Your task to perform on an android device: Clear all items from cart on walmart. Add bose quietcomfort 35 to the cart on walmart Image 0: 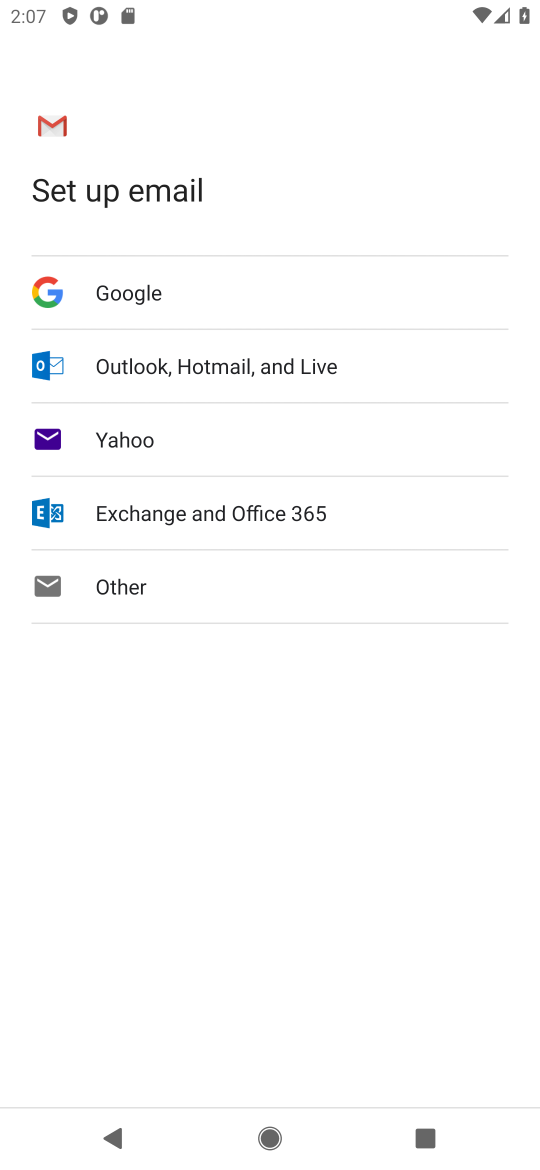
Step 0: press home button
Your task to perform on an android device: Clear all items from cart on walmart. Add bose quietcomfort 35 to the cart on walmart Image 1: 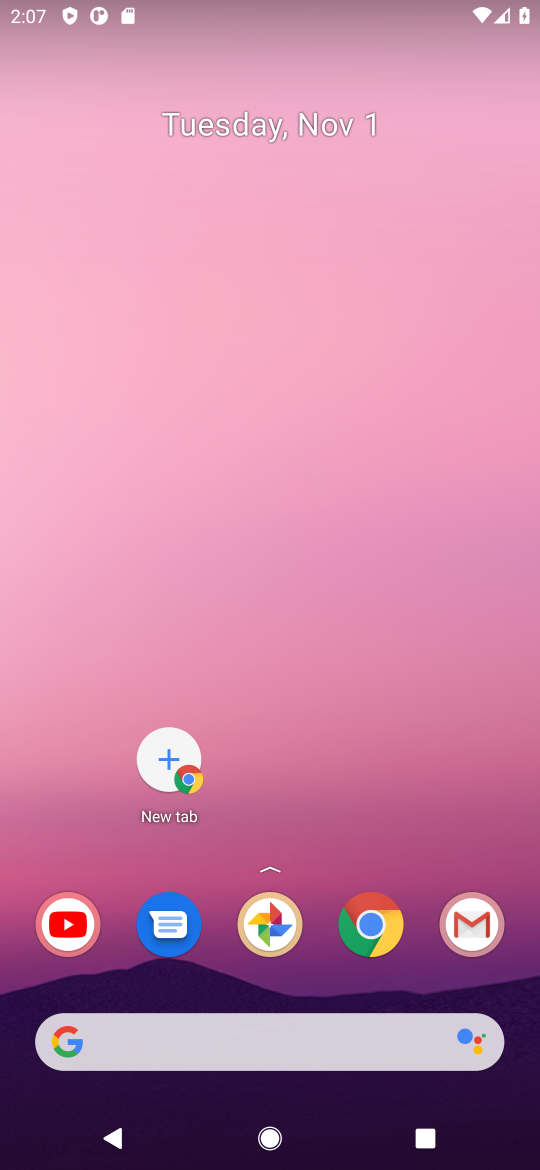
Step 1: click (380, 937)
Your task to perform on an android device: Clear all items from cart on walmart. Add bose quietcomfort 35 to the cart on walmart Image 2: 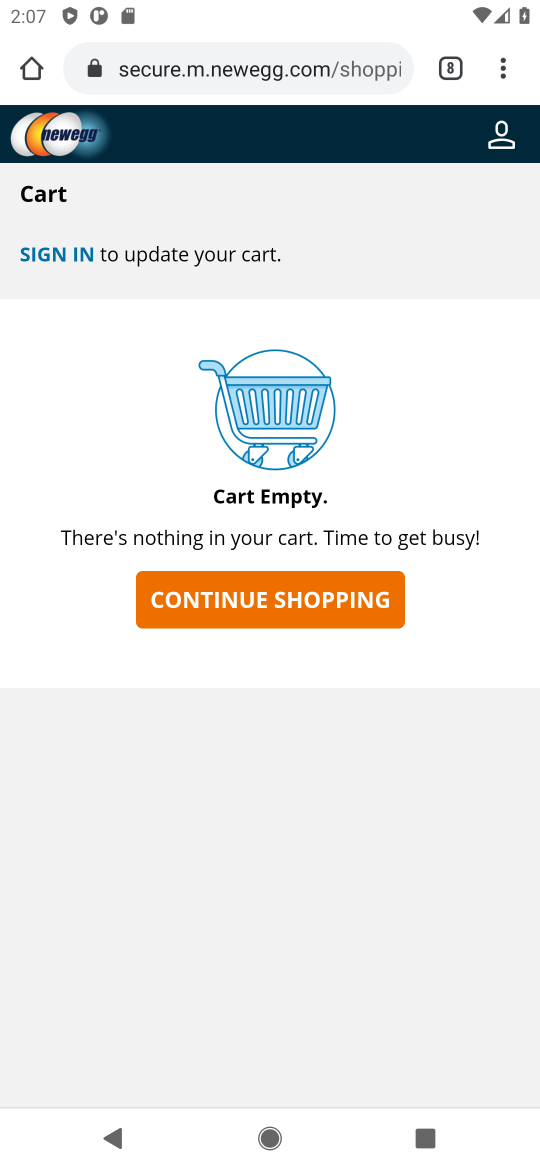
Step 2: click (178, 68)
Your task to perform on an android device: Clear all items from cart on walmart. Add bose quietcomfort 35 to the cart on walmart Image 3: 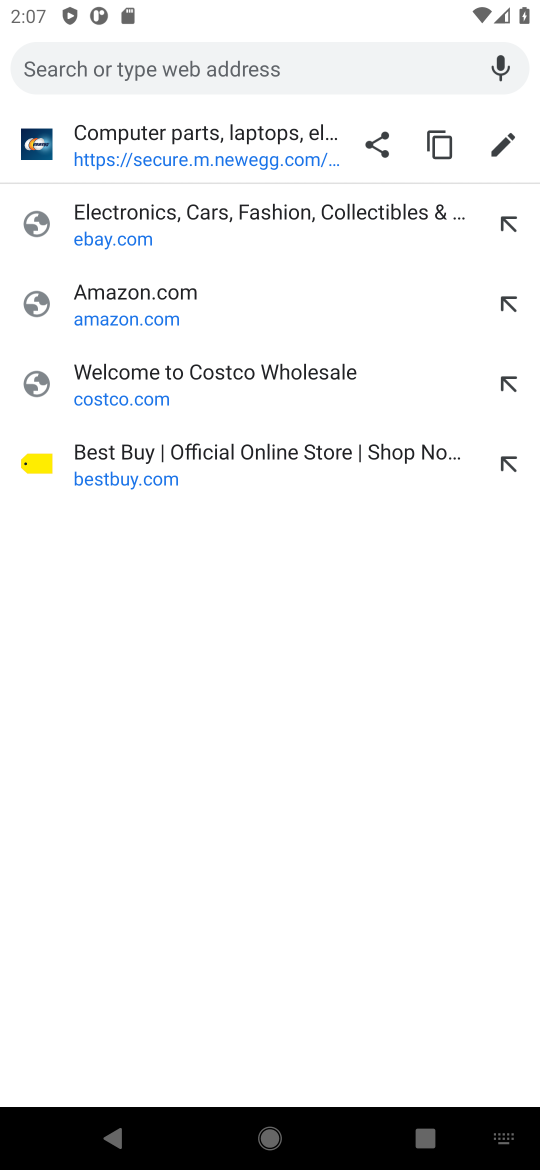
Step 3: type "walmart"
Your task to perform on an android device: Clear all items from cart on walmart. Add bose quietcomfort 35 to the cart on walmart Image 4: 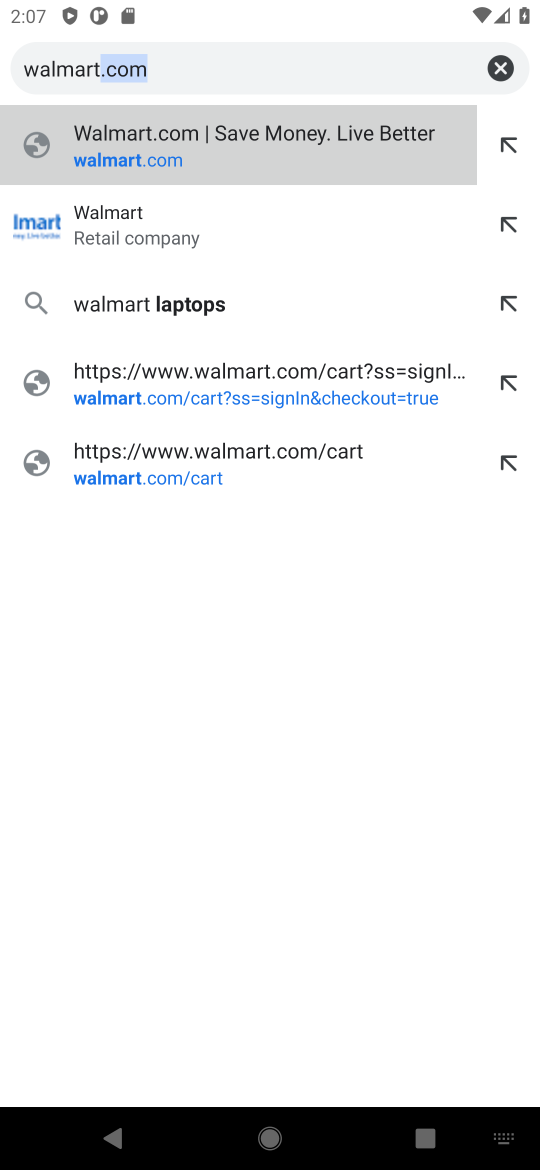
Step 4: type ""
Your task to perform on an android device: Clear all items from cart on walmart. Add bose quietcomfort 35 to the cart on walmart Image 5: 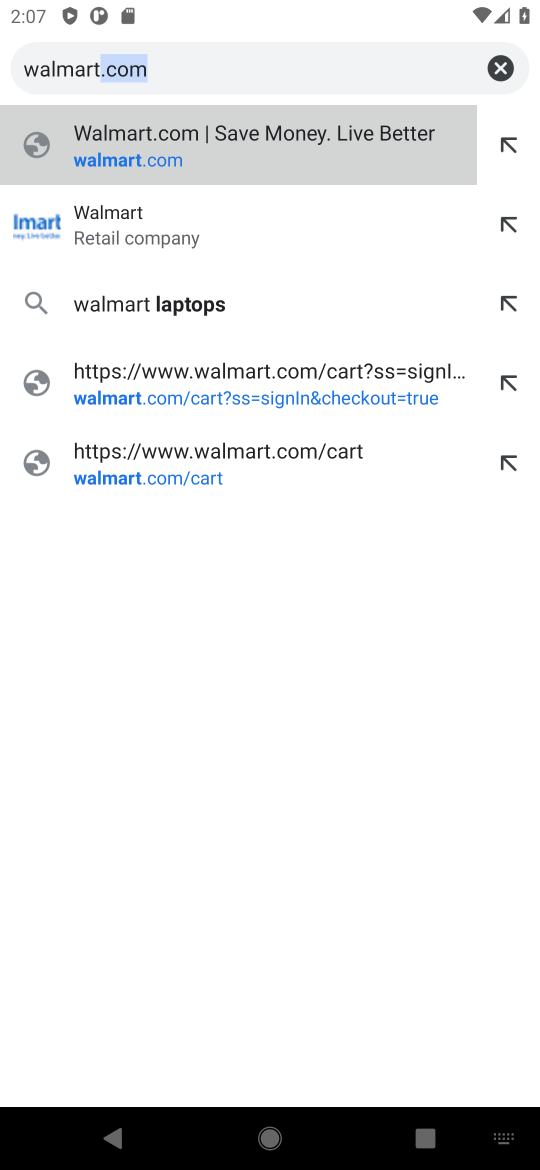
Step 5: click (107, 220)
Your task to perform on an android device: Clear all items from cart on walmart. Add bose quietcomfort 35 to the cart on walmart Image 6: 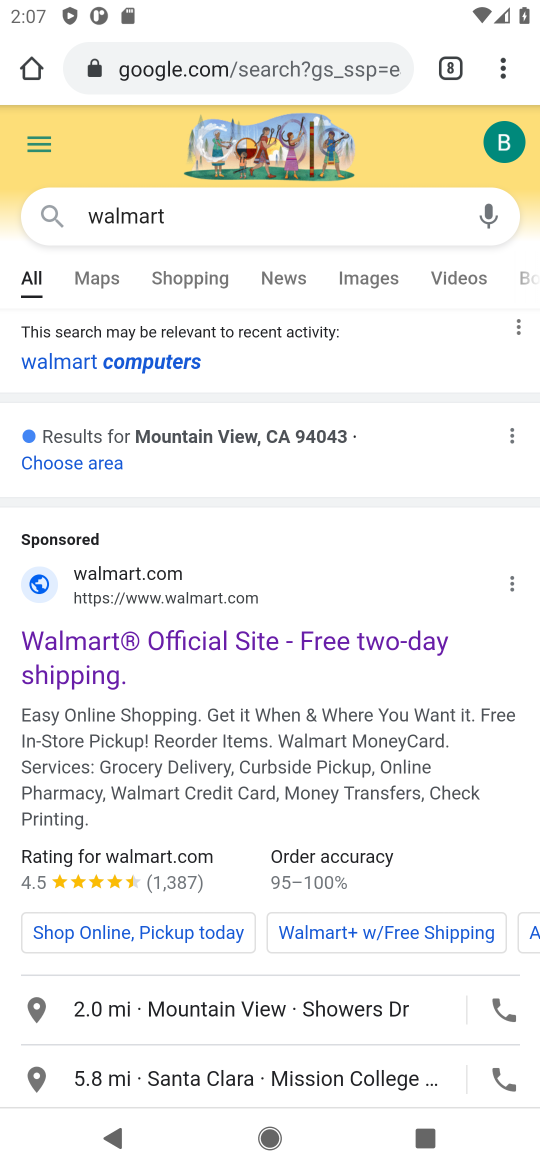
Step 6: click (187, 644)
Your task to perform on an android device: Clear all items from cart on walmart. Add bose quietcomfort 35 to the cart on walmart Image 7: 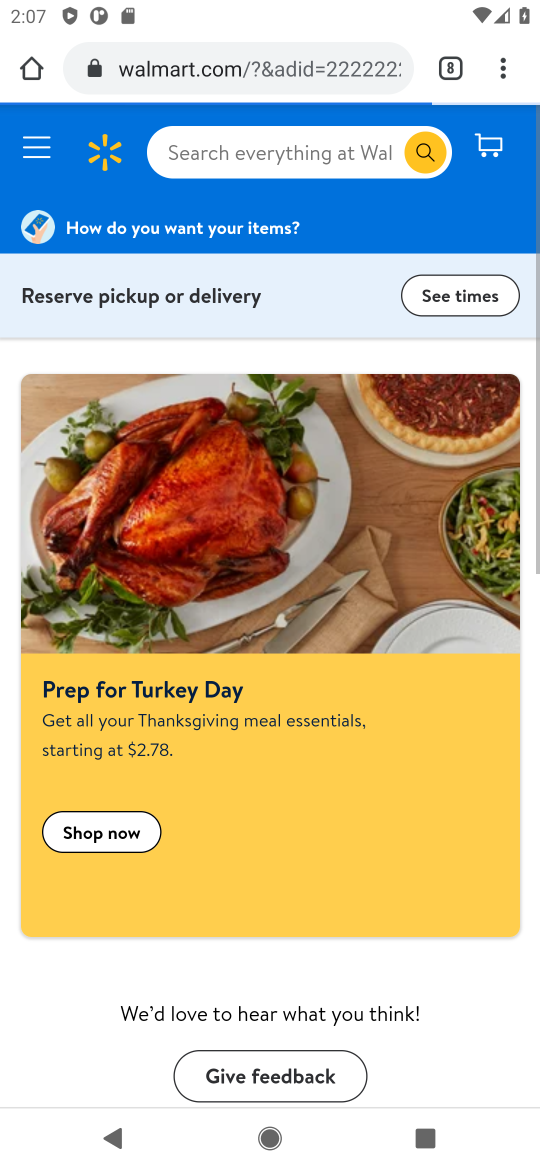
Step 7: click (215, 150)
Your task to perform on an android device: Clear all items from cart on walmart. Add bose quietcomfort 35 to the cart on walmart Image 8: 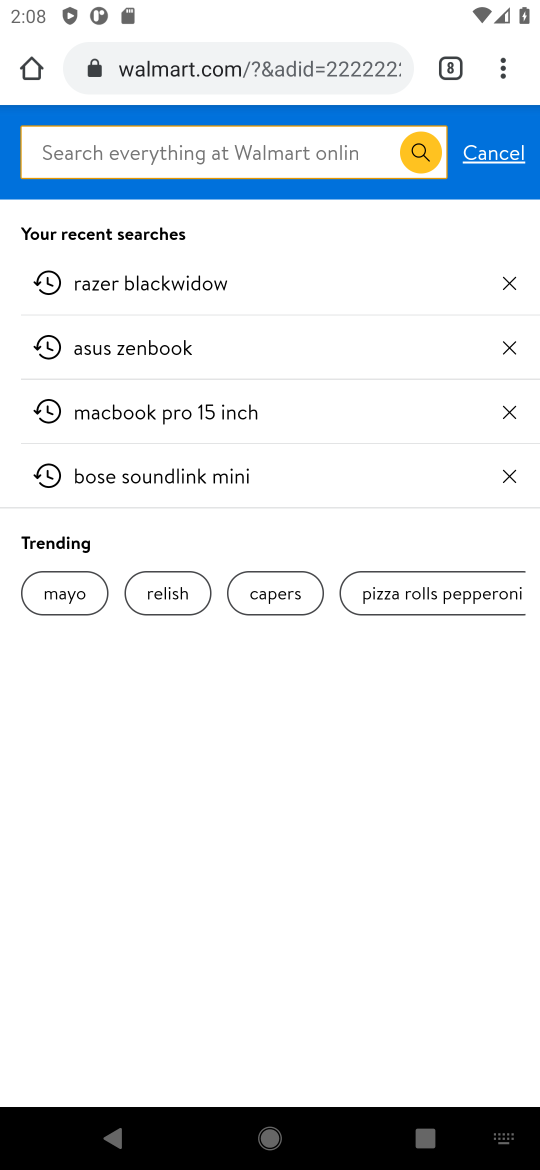
Step 8: type "bose quietcomfort 35"
Your task to perform on an android device: Clear all items from cart on walmart. Add bose quietcomfort 35 to the cart on walmart Image 9: 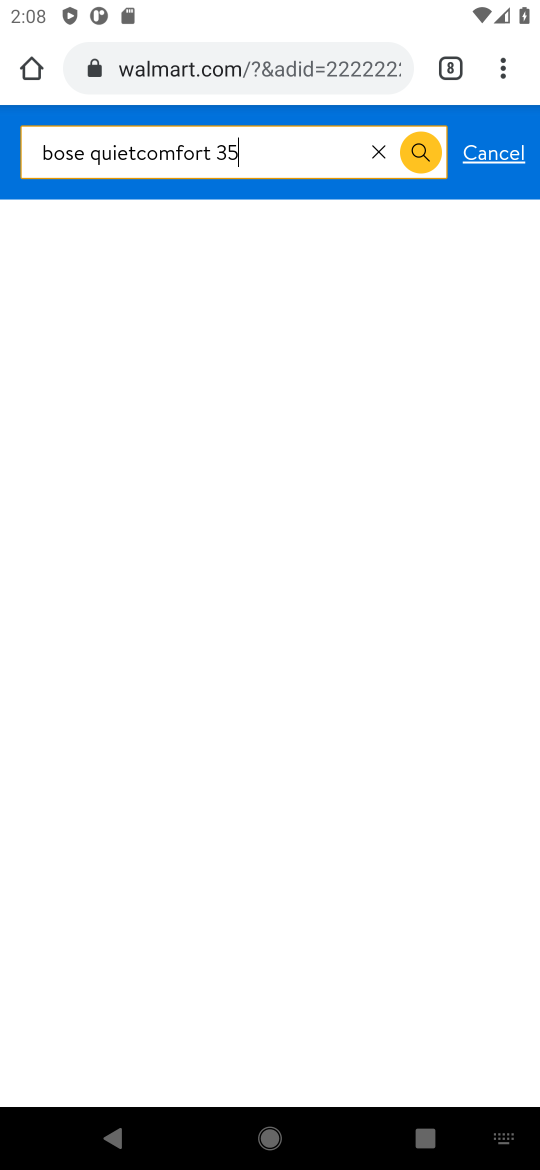
Step 9: type ""
Your task to perform on an android device: Clear all items from cart on walmart. Add bose quietcomfort 35 to the cart on walmart Image 10: 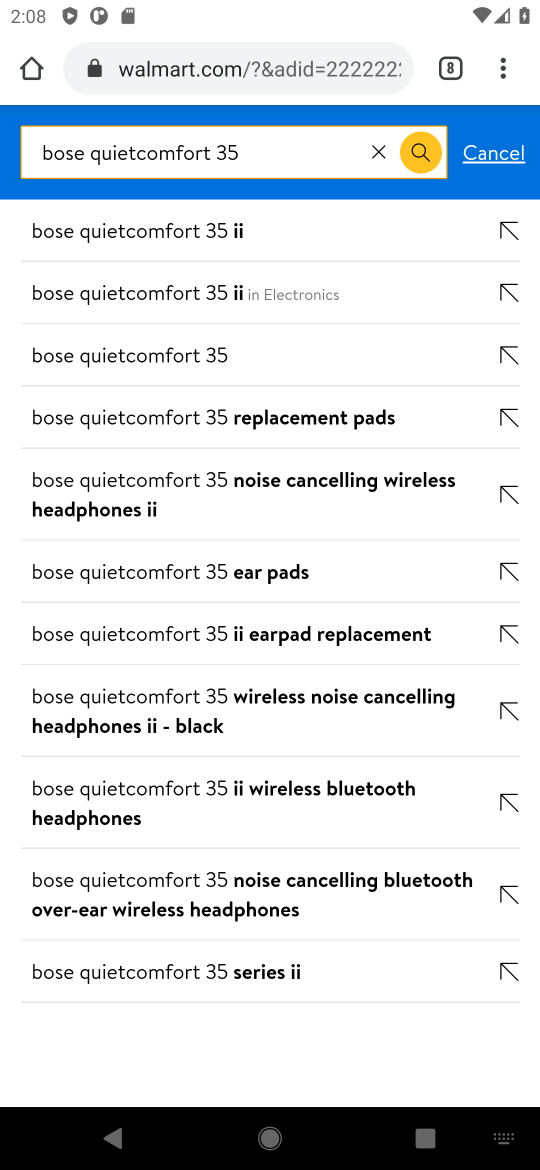
Step 10: click (145, 235)
Your task to perform on an android device: Clear all items from cart on walmart. Add bose quietcomfort 35 to the cart on walmart Image 11: 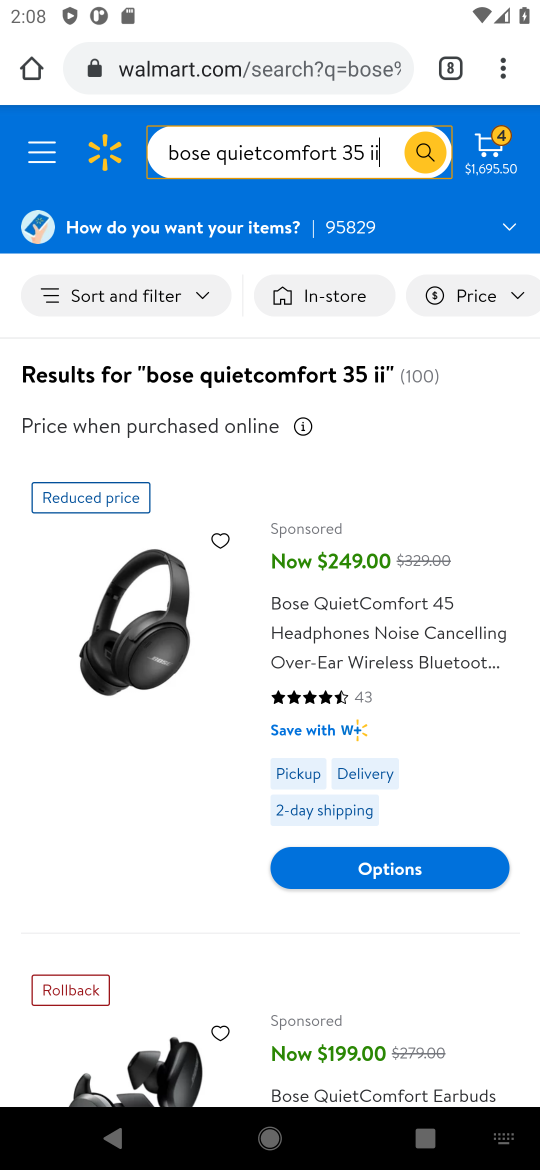
Step 11: click (173, 633)
Your task to perform on an android device: Clear all items from cart on walmart. Add bose quietcomfort 35 to the cart on walmart Image 12: 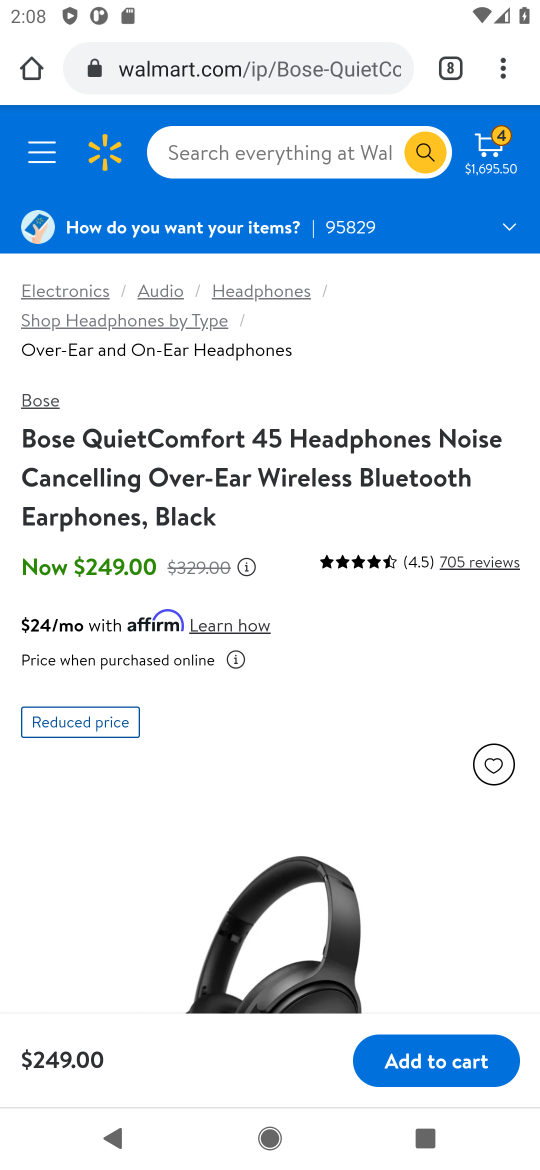
Step 12: click (402, 1068)
Your task to perform on an android device: Clear all items from cart on walmart. Add bose quietcomfort 35 to the cart on walmart Image 13: 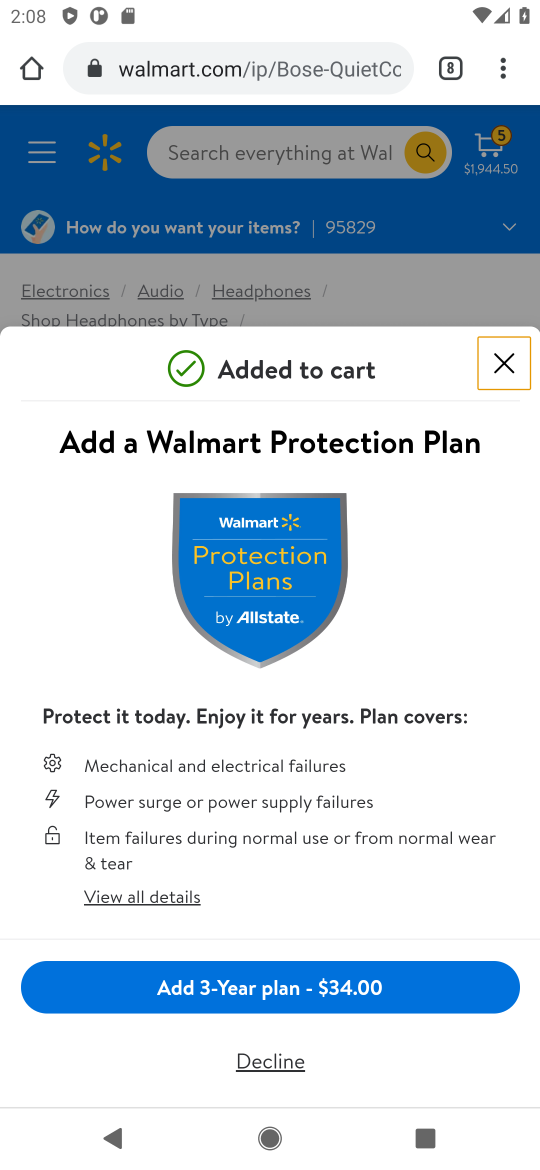
Step 13: click (510, 362)
Your task to perform on an android device: Clear all items from cart on walmart. Add bose quietcomfort 35 to the cart on walmart Image 14: 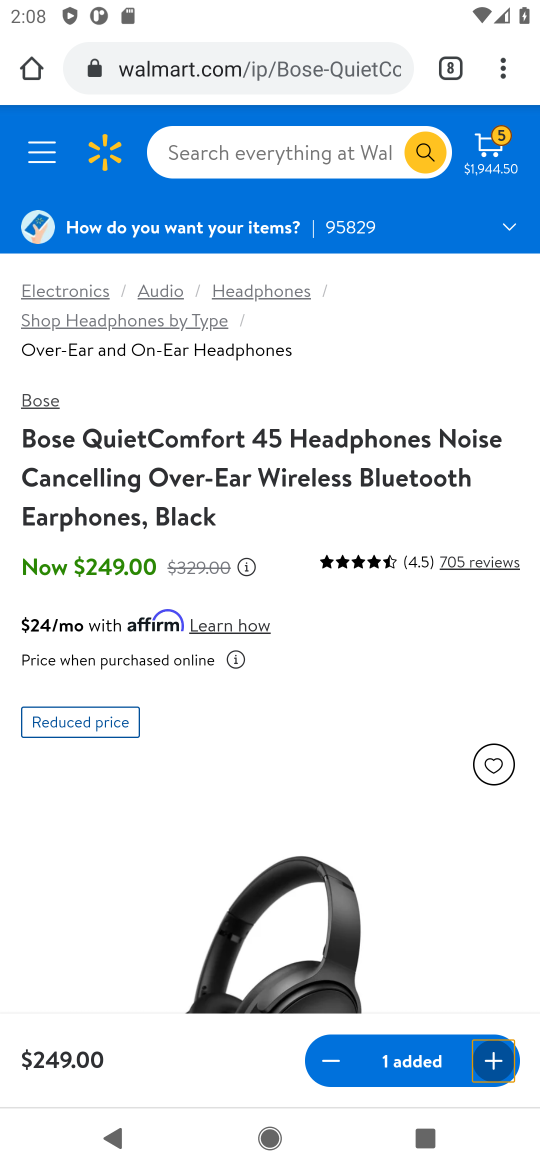
Step 14: drag from (329, 871) to (334, 430)
Your task to perform on an android device: Clear all items from cart on walmart. Add bose quietcomfort 35 to the cart on walmart Image 15: 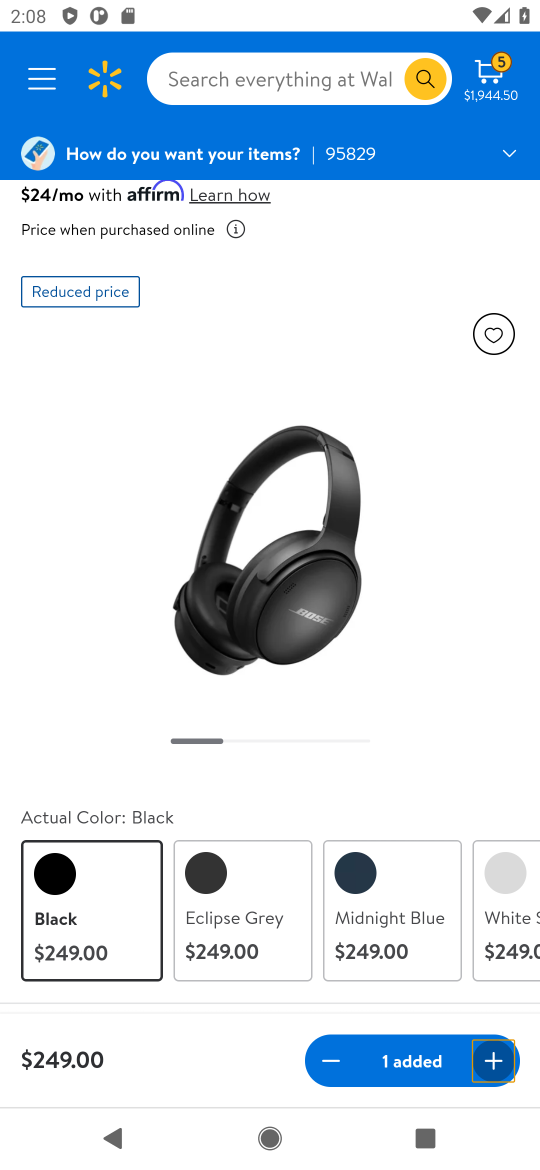
Step 15: drag from (332, 354) to (268, 891)
Your task to perform on an android device: Clear all items from cart on walmart. Add bose quietcomfort 35 to the cart on walmart Image 16: 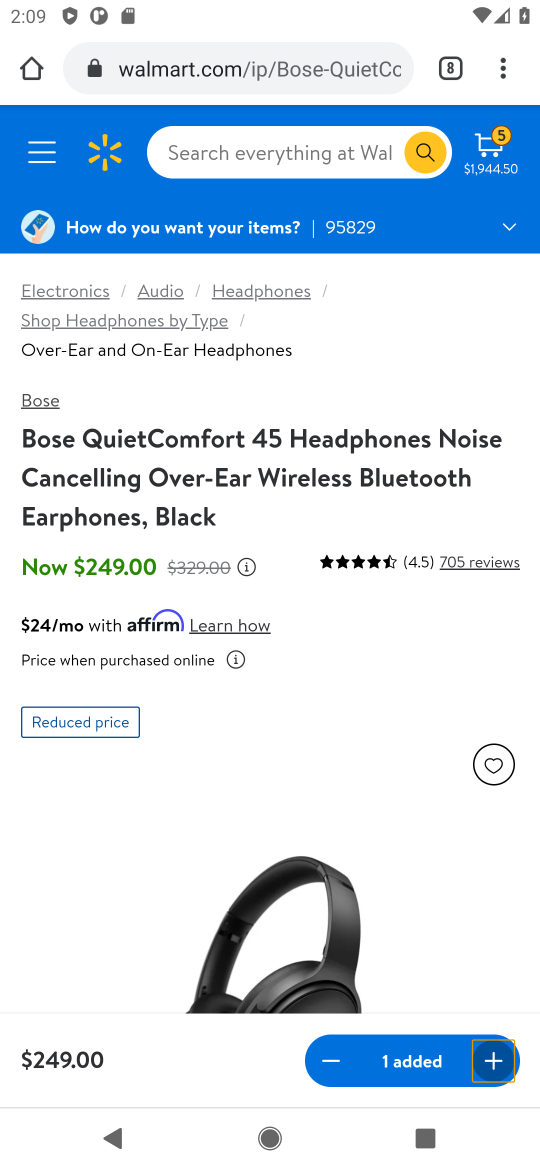
Step 16: click (517, 149)
Your task to perform on an android device: Clear all items from cart on walmart. Add bose quietcomfort 35 to the cart on walmart Image 17: 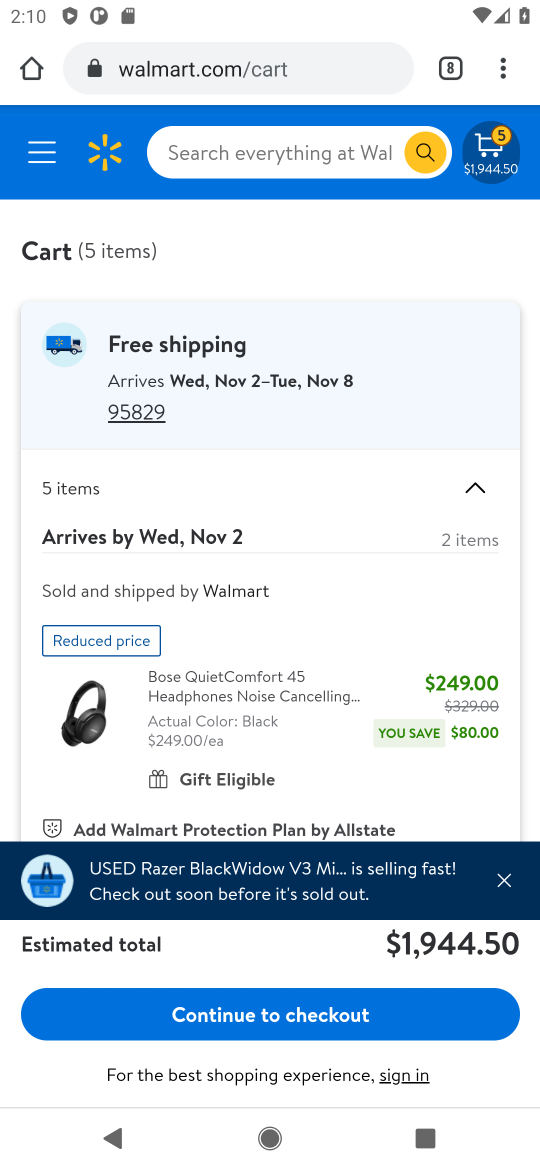
Step 17: click (502, 888)
Your task to perform on an android device: Clear all items from cart on walmart. Add bose quietcomfort 35 to the cart on walmart Image 18: 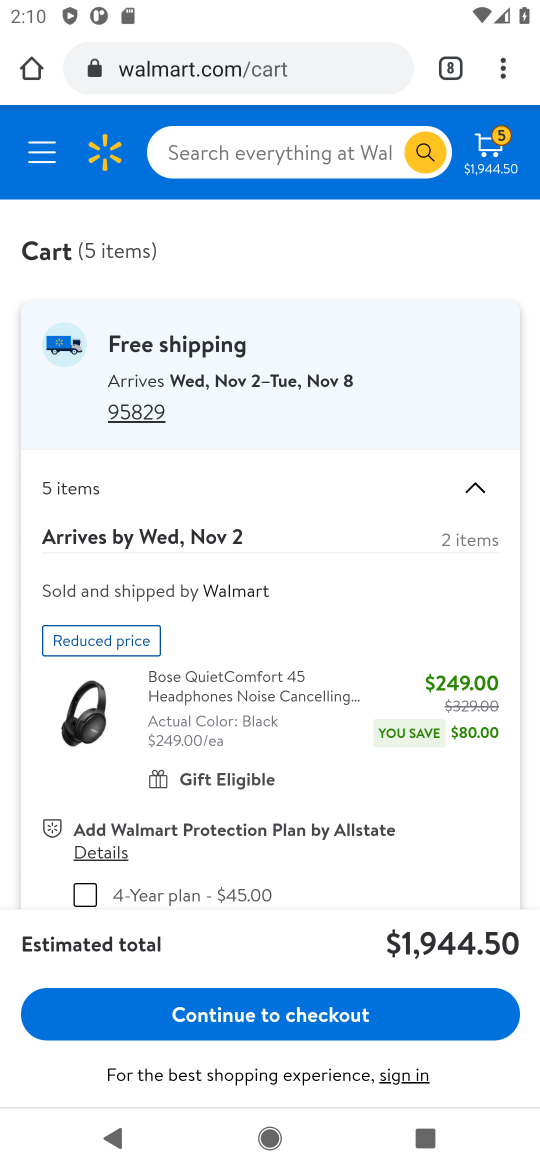
Step 18: drag from (199, 784) to (350, 260)
Your task to perform on an android device: Clear all items from cart on walmart. Add bose quietcomfort 35 to the cart on walmart Image 19: 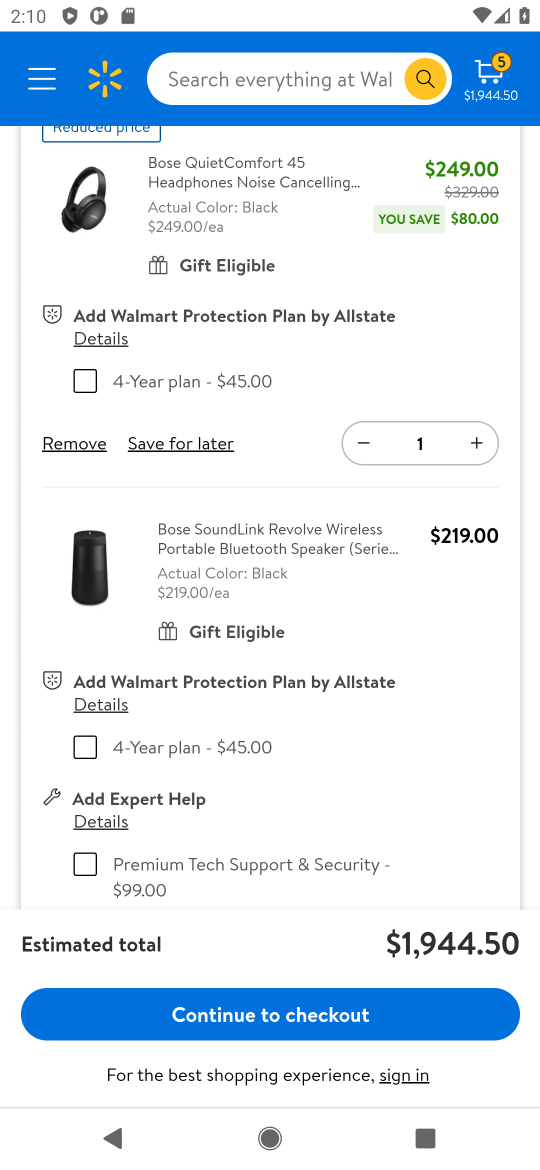
Step 19: drag from (214, 773) to (295, 460)
Your task to perform on an android device: Clear all items from cart on walmart. Add bose quietcomfort 35 to the cart on walmart Image 20: 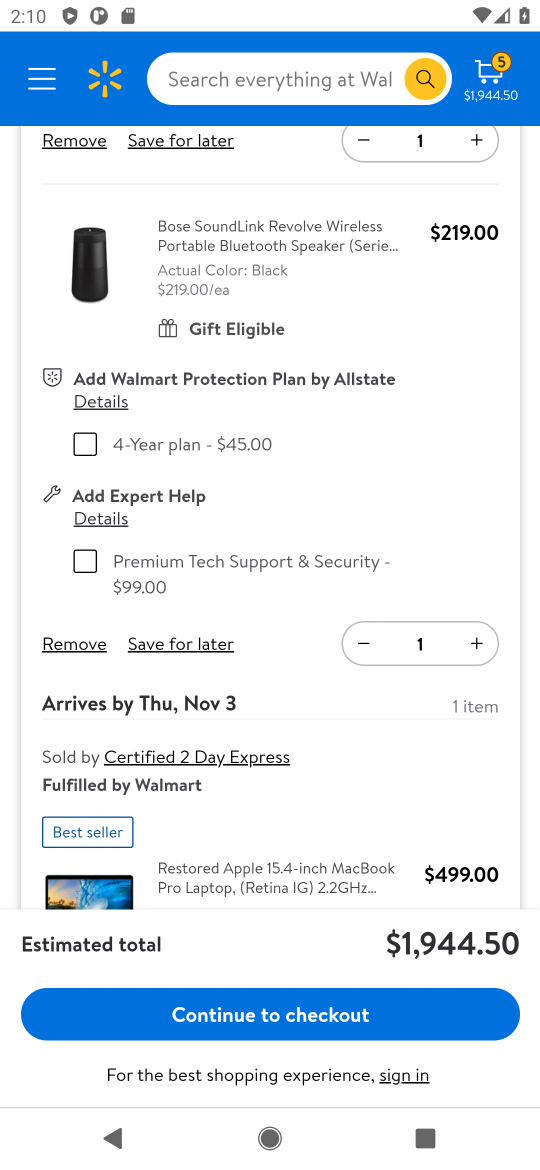
Step 20: click (83, 646)
Your task to perform on an android device: Clear all items from cart on walmart. Add bose quietcomfort 35 to the cart on walmart Image 21: 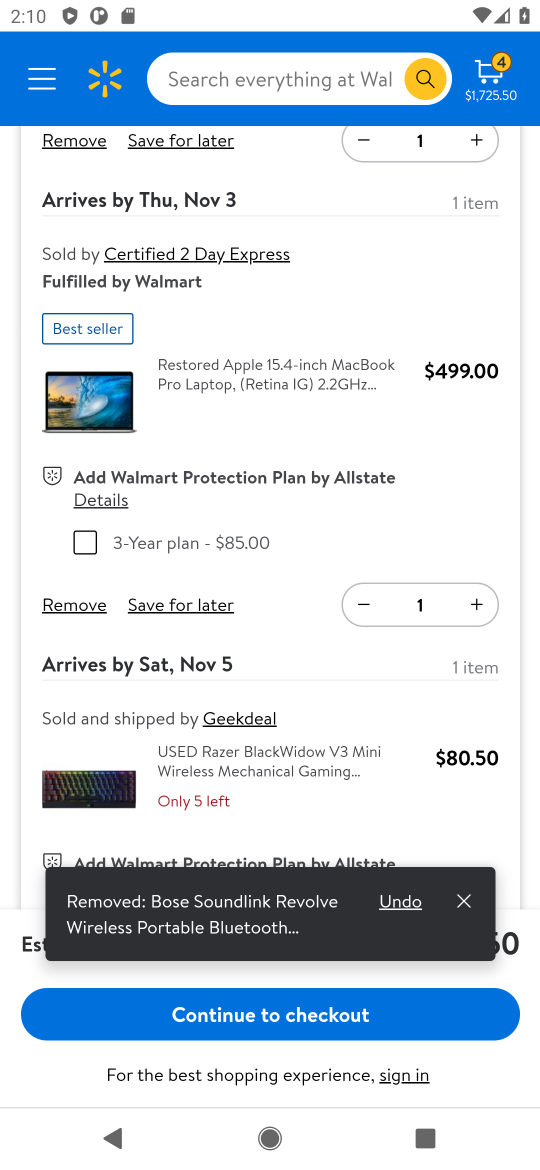
Step 21: drag from (92, 784) to (222, 307)
Your task to perform on an android device: Clear all items from cart on walmart. Add bose quietcomfort 35 to the cart on walmart Image 22: 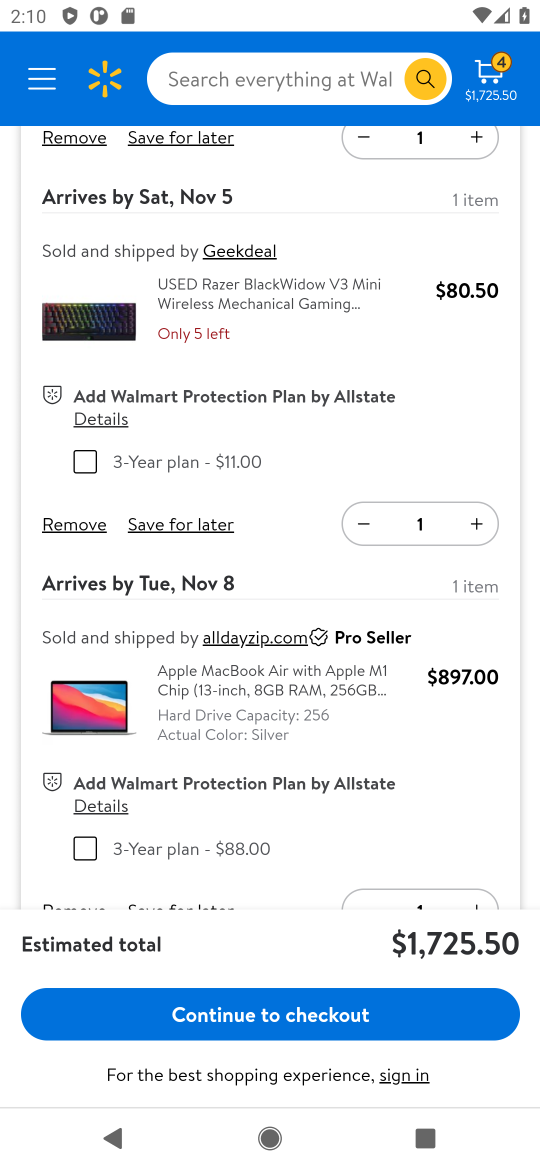
Step 22: click (66, 522)
Your task to perform on an android device: Clear all items from cart on walmart. Add bose quietcomfort 35 to the cart on walmart Image 23: 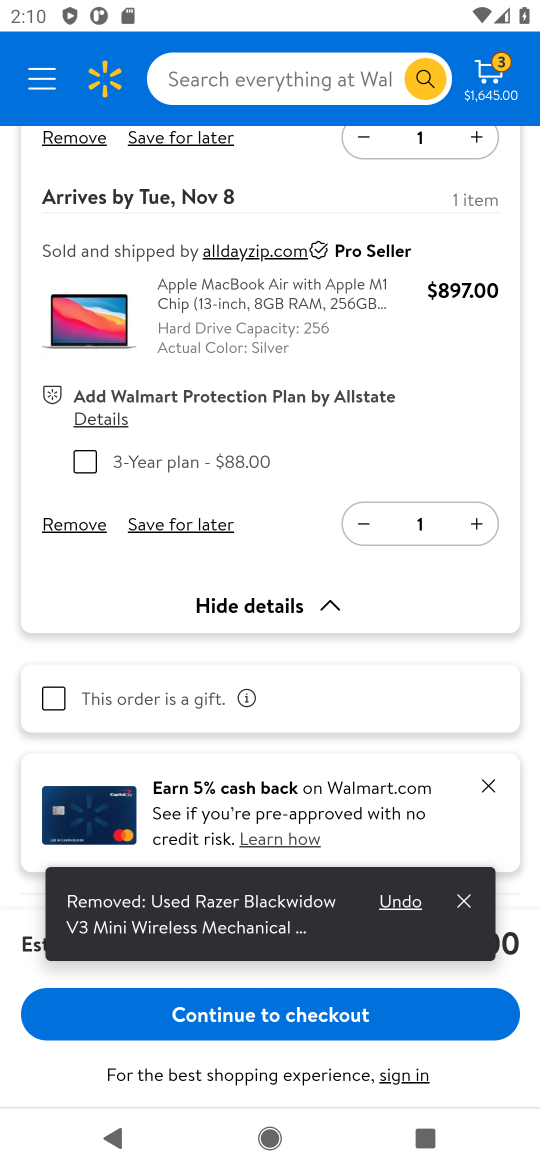
Step 23: drag from (126, 771) to (247, 823)
Your task to perform on an android device: Clear all items from cart on walmart. Add bose quietcomfort 35 to the cart on walmart Image 24: 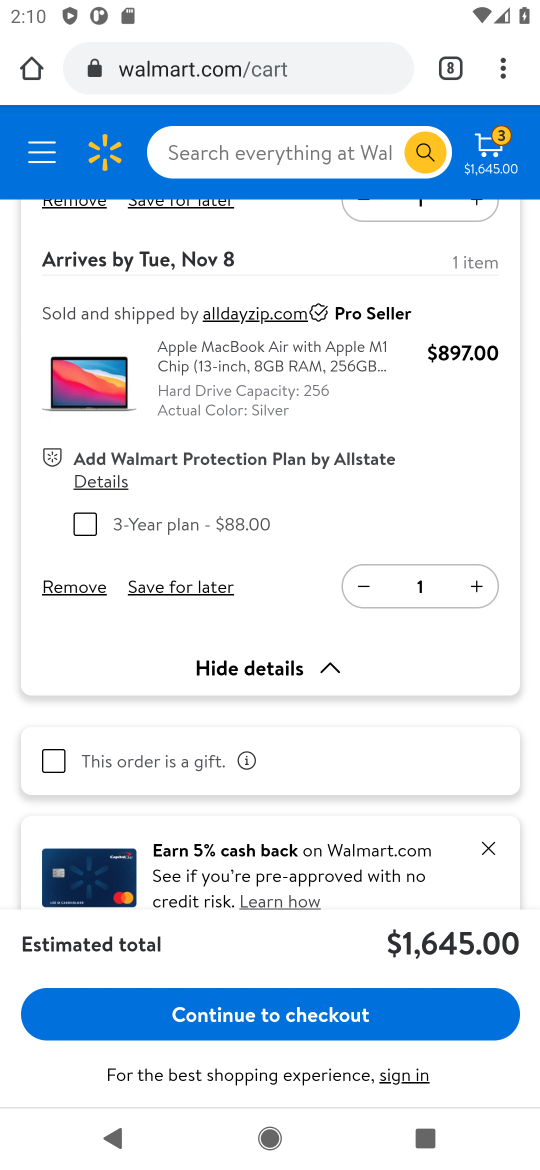
Step 24: drag from (272, 437) to (253, 328)
Your task to perform on an android device: Clear all items from cart on walmart. Add bose quietcomfort 35 to the cart on walmart Image 25: 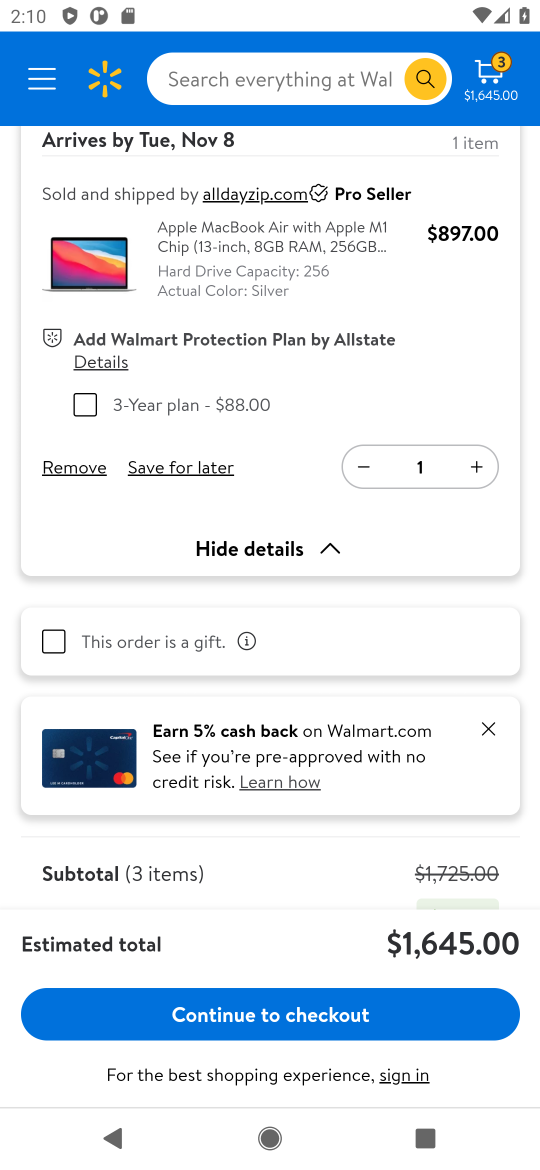
Step 25: click (84, 469)
Your task to perform on an android device: Clear all items from cart on walmart. Add bose quietcomfort 35 to the cart on walmart Image 26: 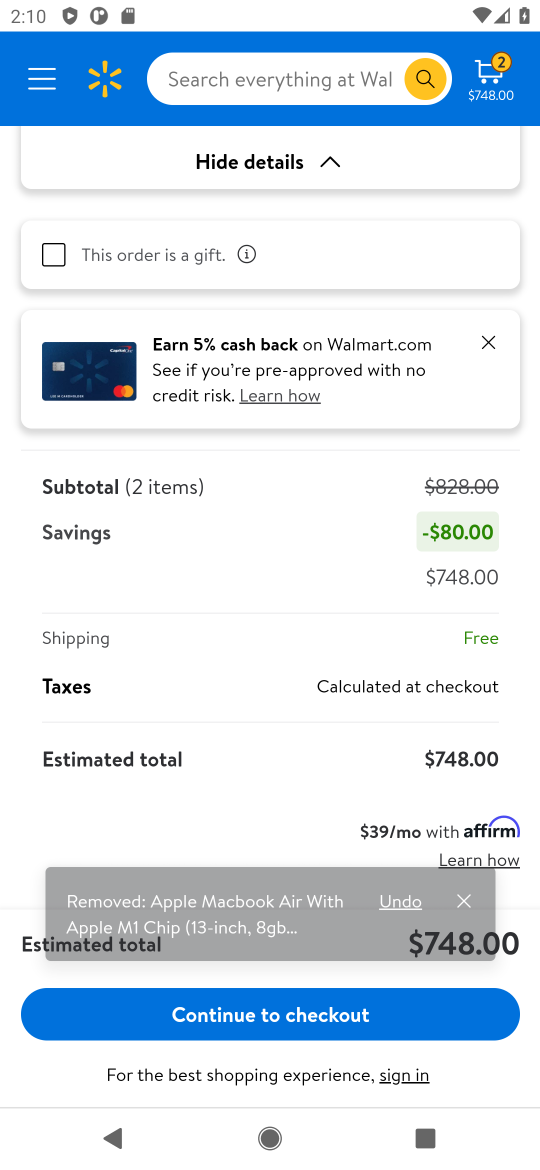
Step 26: click (485, 336)
Your task to perform on an android device: Clear all items from cart on walmart. Add bose quietcomfort 35 to the cart on walmart Image 27: 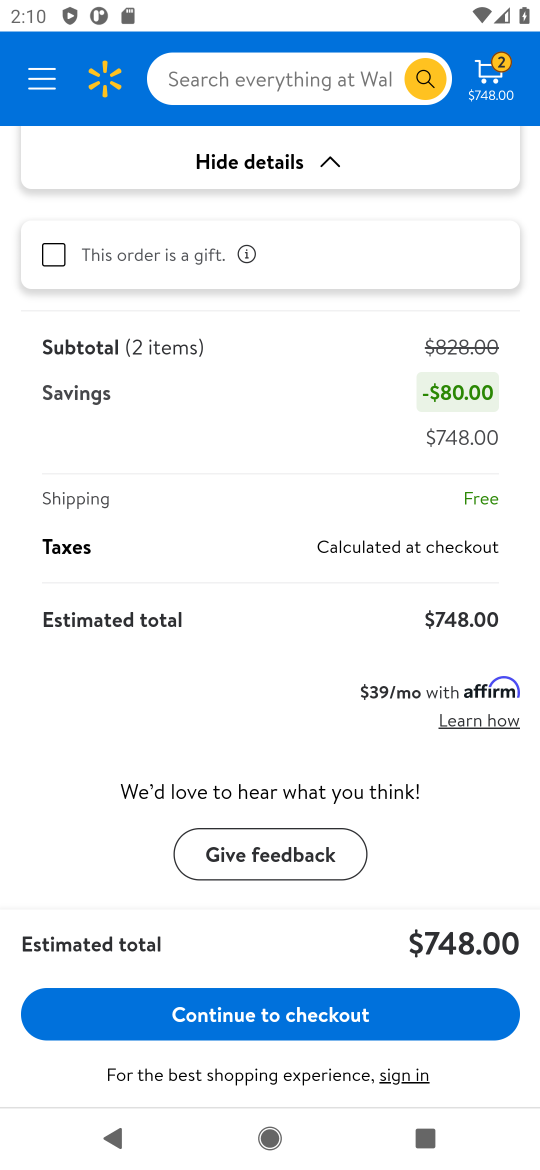
Step 27: drag from (276, 388) to (159, 891)
Your task to perform on an android device: Clear all items from cart on walmart. Add bose quietcomfort 35 to the cart on walmart Image 28: 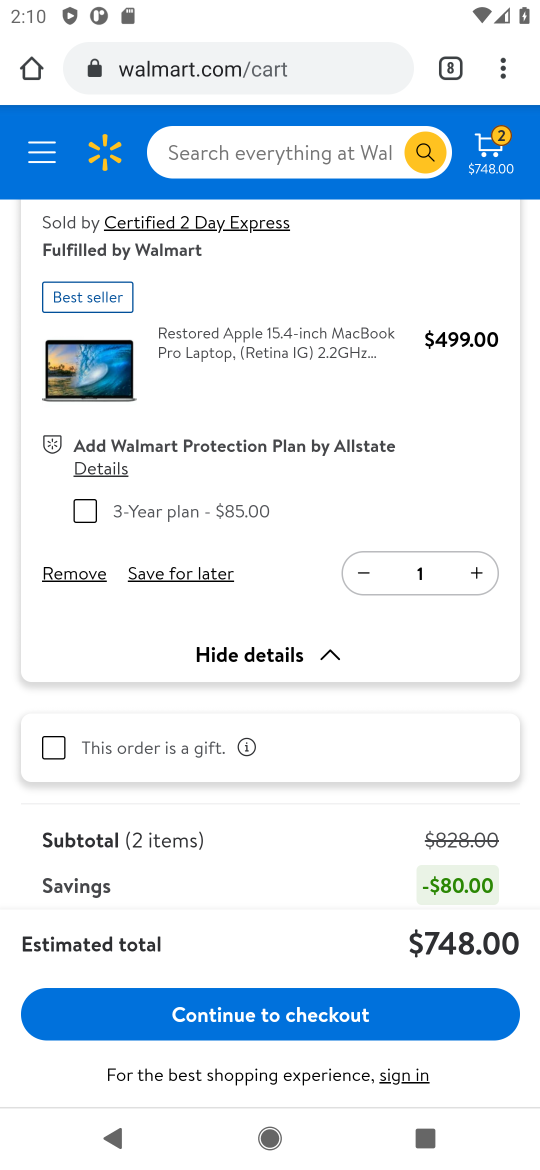
Step 28: drag from (256, 427) to (138, 834)
Your task to perform on an android device: Clear all items from cart on walmart. Add bose quietcomfort 35 to the cart on walmart Image 29: 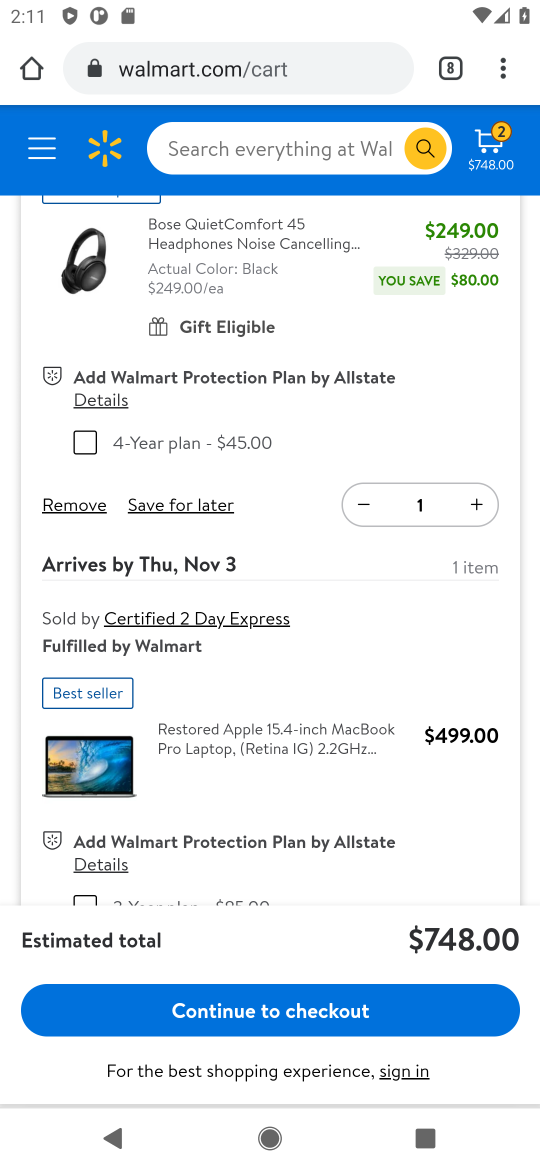
Step 29: drag from (79, 772) to (205, 422)
Your task to perform on an android device: Clear all items from cart on walmart. Add bose quietcomfort 35 to the cart on walmart Image 30: 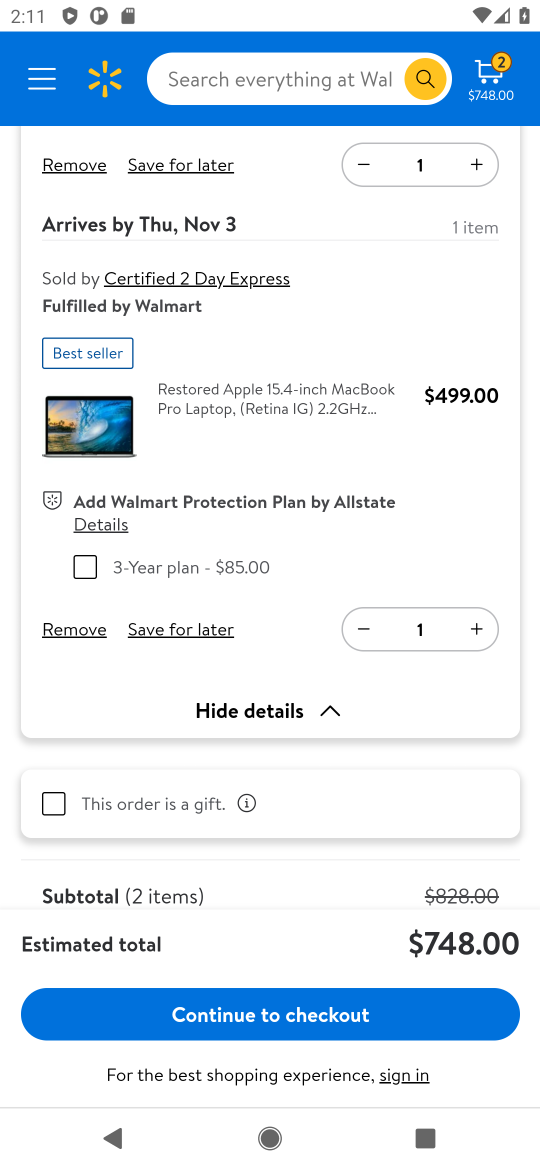
Step 30: click (54, 625)
Your task to perform on an android device: Clear all items from cart on walmart. Add bose quietcomfort 35 to the cart on walmart Image 31: 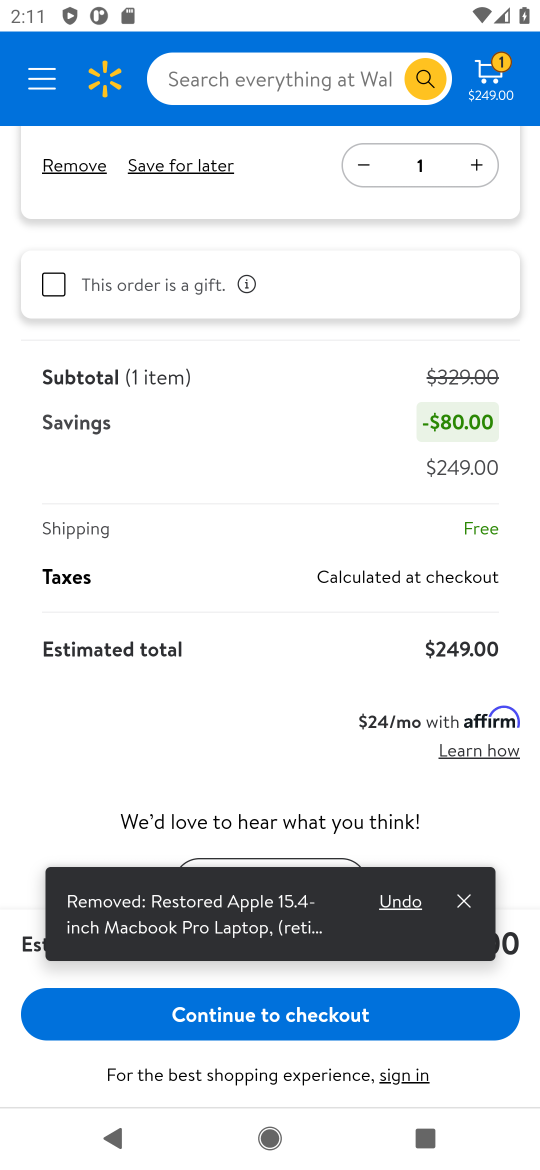
Step 31: click (468, 909)
Your task to perform on an android device: Clear all items from cart on walmart. Add bose quietcomfort 35 to the cart on walmart Image 32: 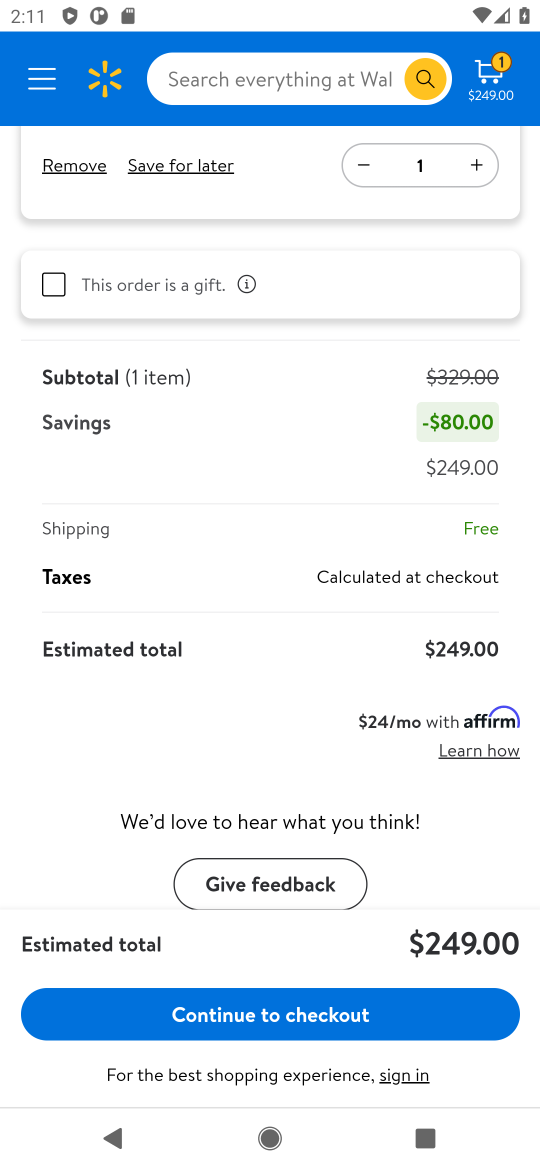
Step 32: task complete